Your task to perform on an android device: check out phone information Image 0: 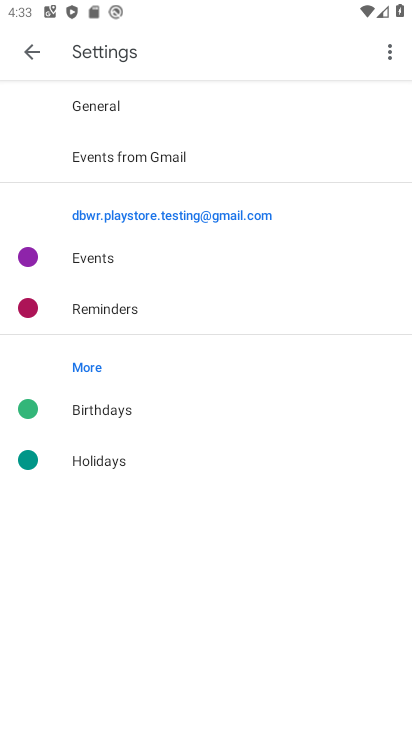
Step 0: press home button
Your task to perform on an android device: check out phone information Image 1: 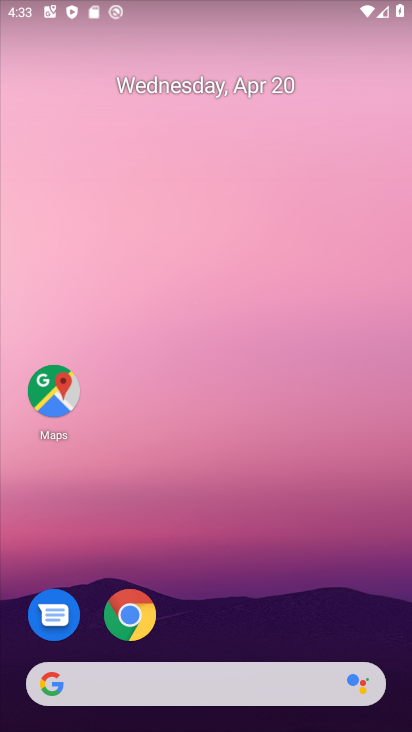
Step 1: drag from (217, 640) to (300, 67)
Your task to perform on an android device: check out phone information Image 2: 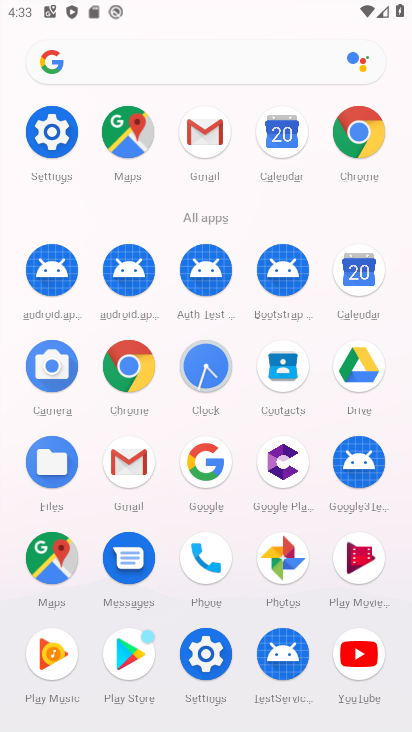
Step 2: click (209, 641)
Your task to perform on an android device: check out phone information Image 3: 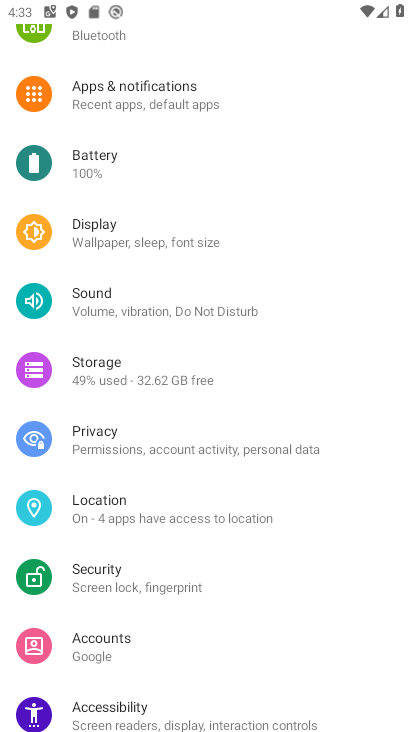
Step 3: drag from (137, 620) to (175, 302)
Your task to perform on an android device: check out phone information Image 4: 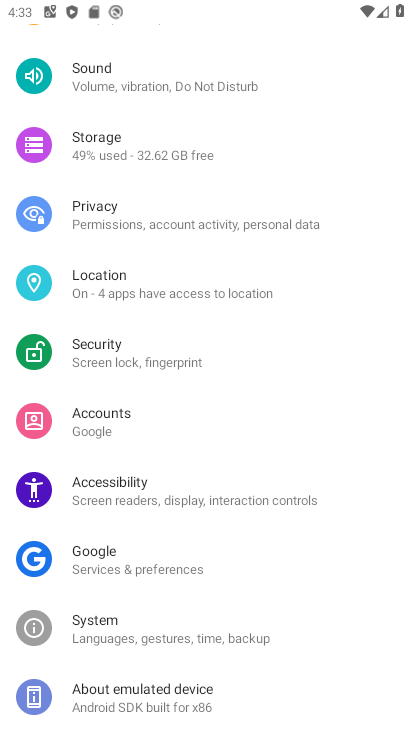
Step 4: click (107, 681)
Your task to perform on an android device: check out phone information Image 5: 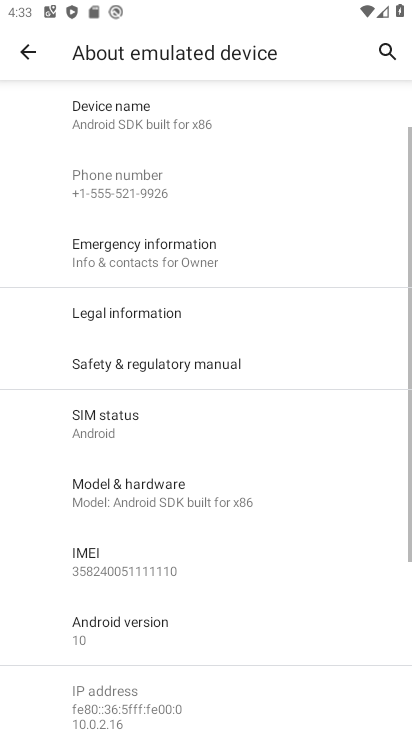
Step 5: task complete